Your task to perform on an android device: Go to location settings Image 0: 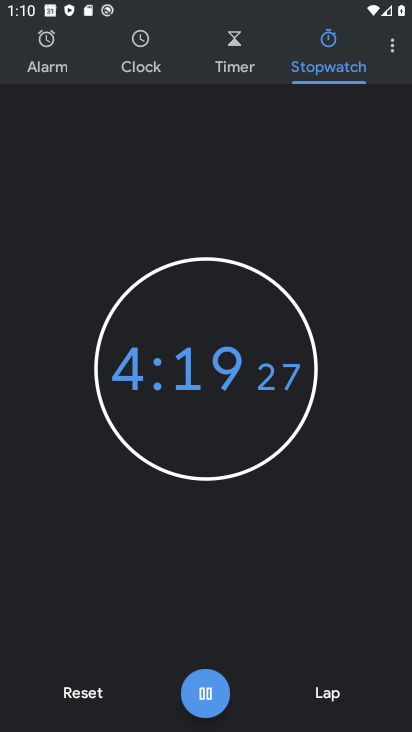
Step 0: press home button
Your task to perform on an android device: Go to location settings Image 1: 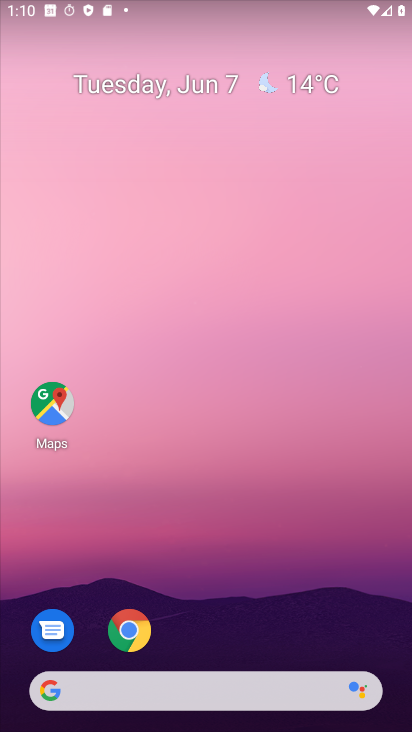
Step 1: drag from (195, 638) to (314, 20)
Your task to perform on an android device: Go to location settings Image 2: 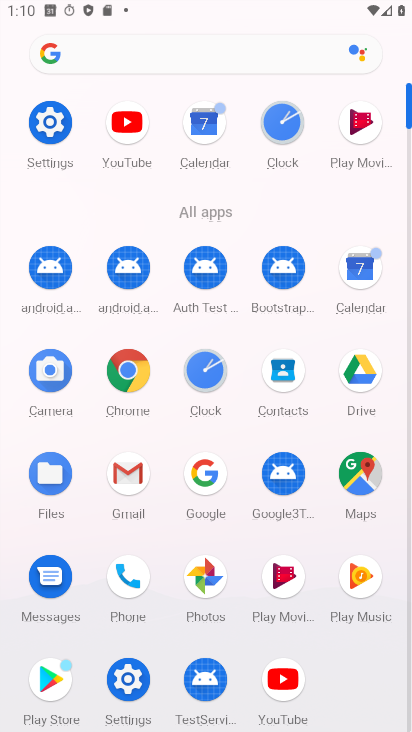
Step 2: click (60, 134)
Your task to perform on an android device: Go to location settings Image 3: 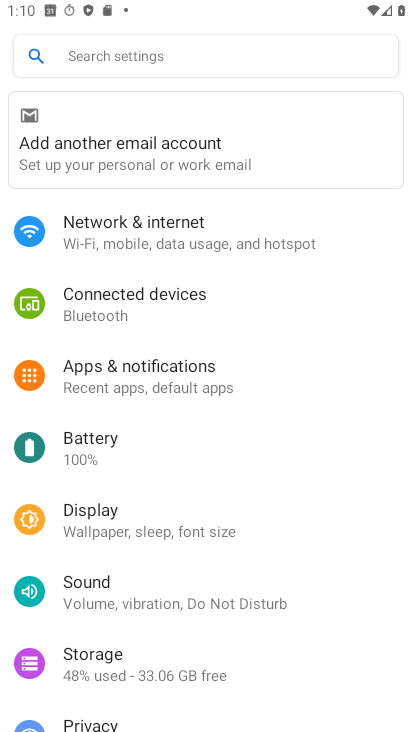
Step 3: drag from (177, 649) to (248, 226)
Your task to perform on an android device: Go to location settings Image 4: 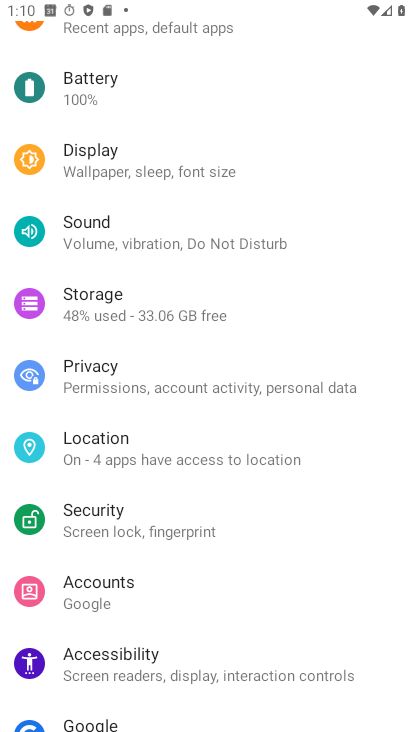
Step 4: click (124, 452)
Your task to perform on an android device: Go to location settings Image 5: 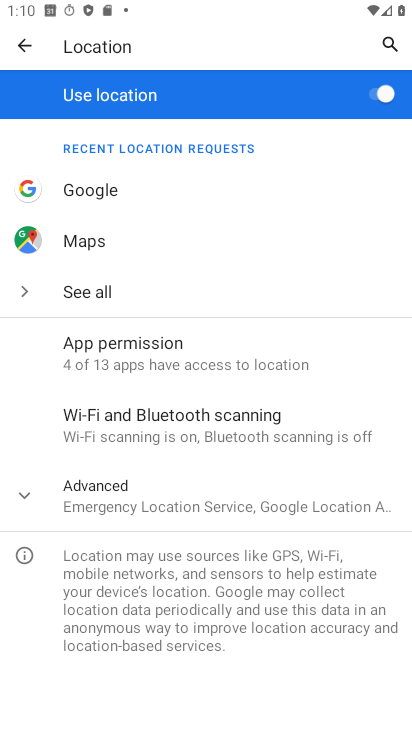
Step 5: task complete